Your task to perform on an android device: Turn on the flashlight Image 0: 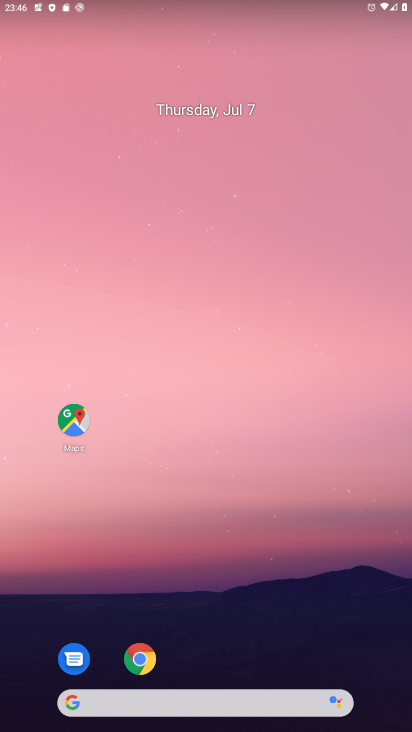
Step 0: drag from (215, 666) to (247, 232)
Your task to perform on an android device: Turn on the flashlight Image 1: 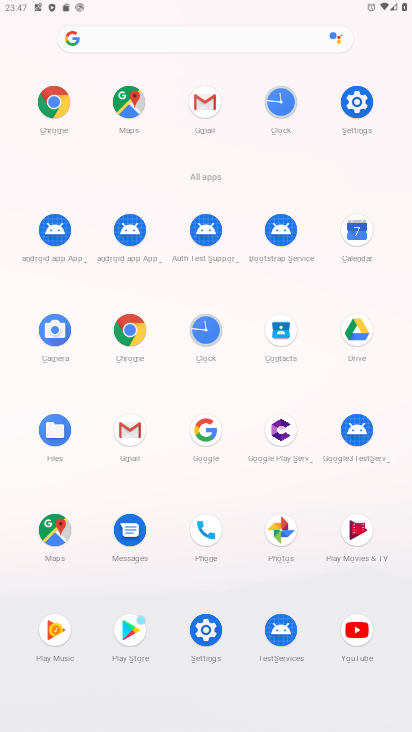
Step 1: click (358, 103)
Your task to perform on an android device: Turn on the flashlight Image 2: 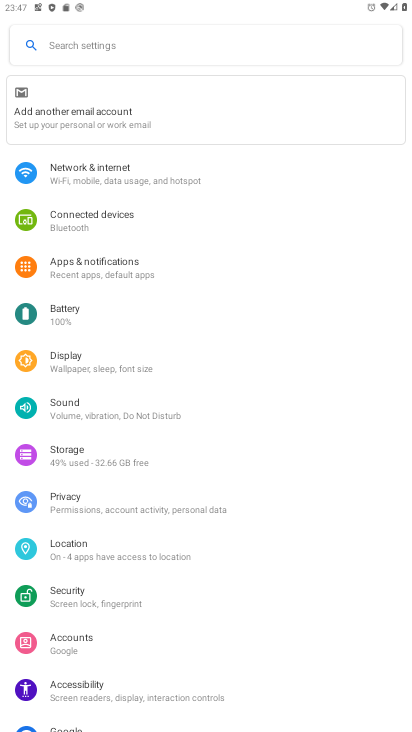
Step 2: task complete